Your task to perform on an android device: toggle notifications settings in the gmail app Image 0: 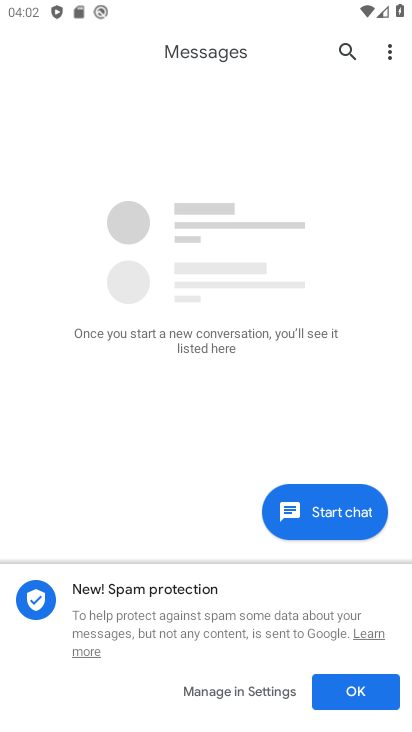
Step 0: press home button
Your task to perform on an android device: toggle notifications settings in the gmail app Image 1: 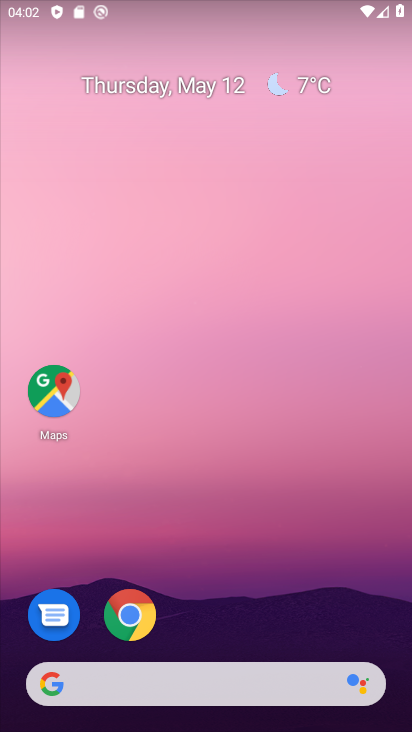
Step 1: drag from (236, 566) to (236, 63)
Your task to perform on an android device: toggle notifications settings in the gmail app Image 2: 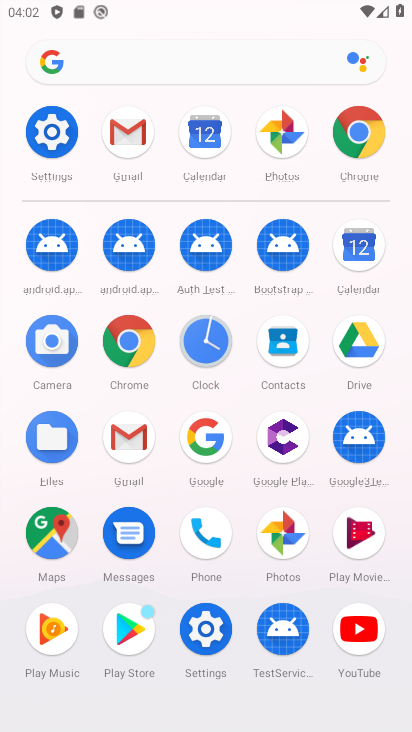
Step 2: click (124, 418)
Your task to perform on an android device: toggle notifications settings in the gmail app Image 3: 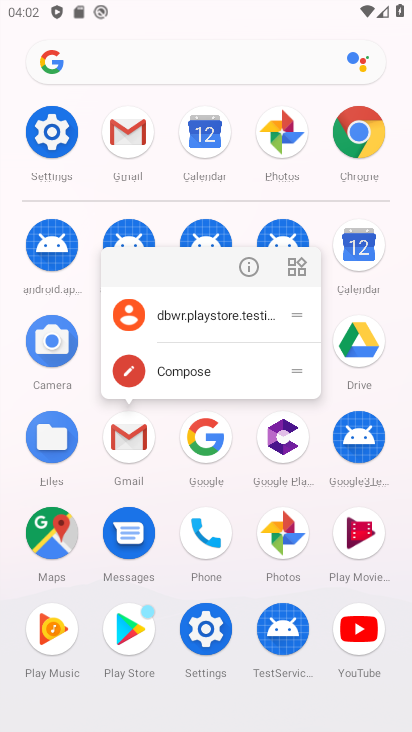
Step 3: click (249, 267)
Your task to perform on an android device: toggle notifications settings in the gmail app Image 4: 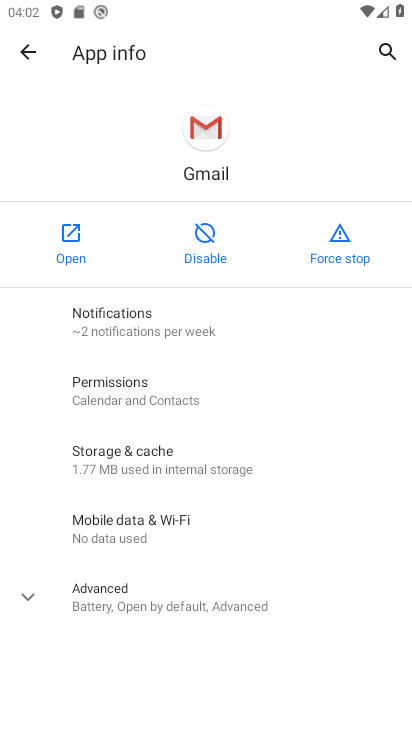
Step 4: click (190, 324)
Your task to perform on an android device: toggle notifications settings in the gmail app Image 5: 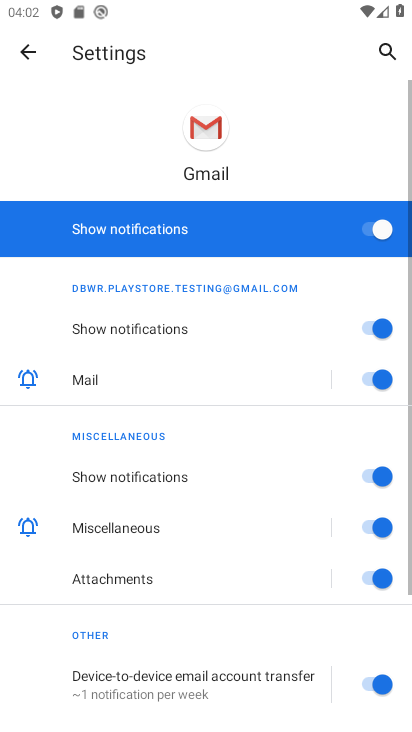
Step 5: click (375, 228)
Your task to perform on an android device: toggle notifications settings in the gmail app Image 6: 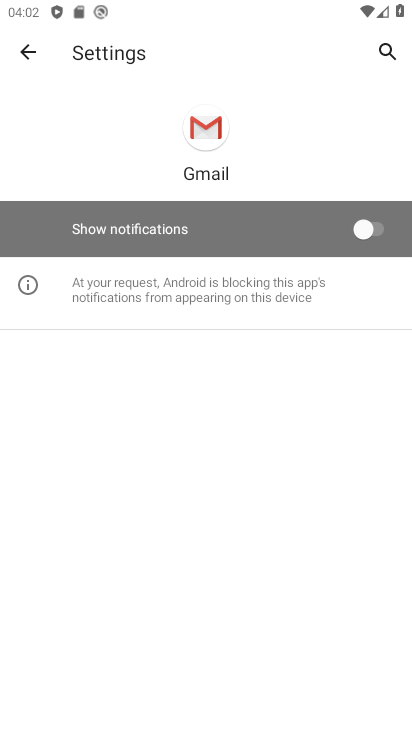
Step 6: task complete